Your task to perform on an android device: Open Chrome and go to the settings page Image 0: 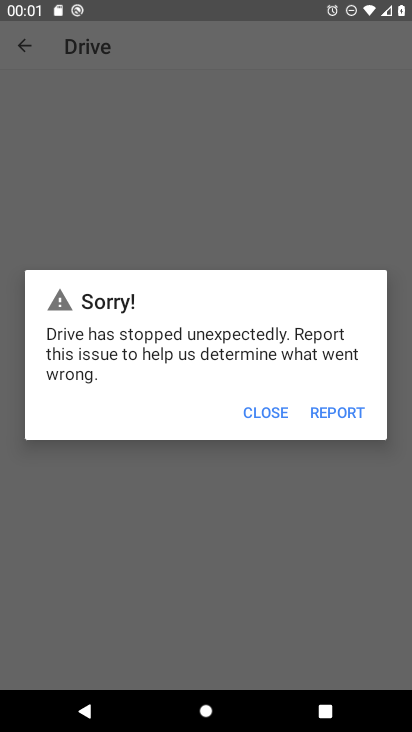
Step 0: press home button
Your task to perform on an android device: Open Chrome and go to the settings page Image 1: 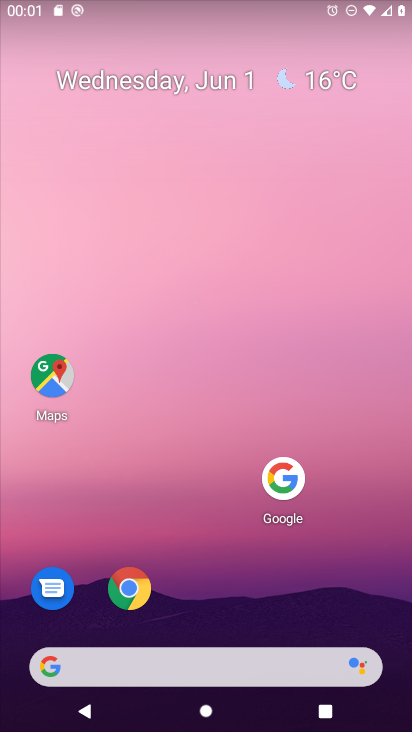
Step 1: click (130, 602)
Your task to perform on an android device: Open Chrome and go to the settings page Image 2: 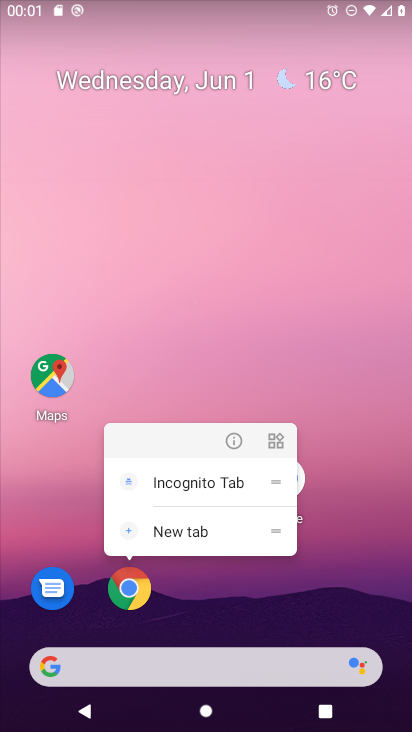
Step 2: click (138, 585)
Your task to perform on an android device: Open Chrome and go to the settings page Image 3: 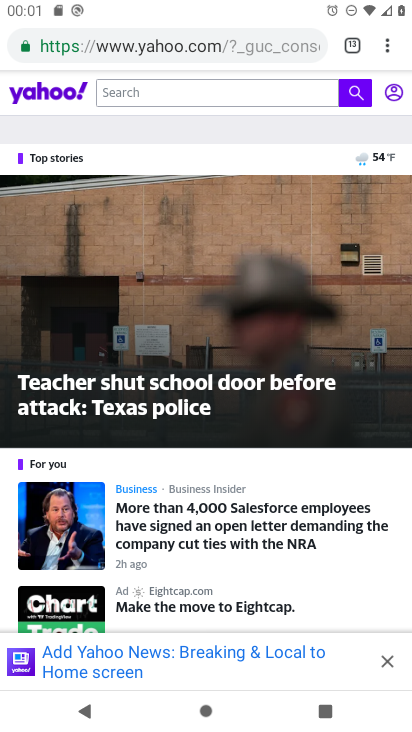
Step 3: task complete